Your task to perform on an android device: What's on my calendar today? Image 0: 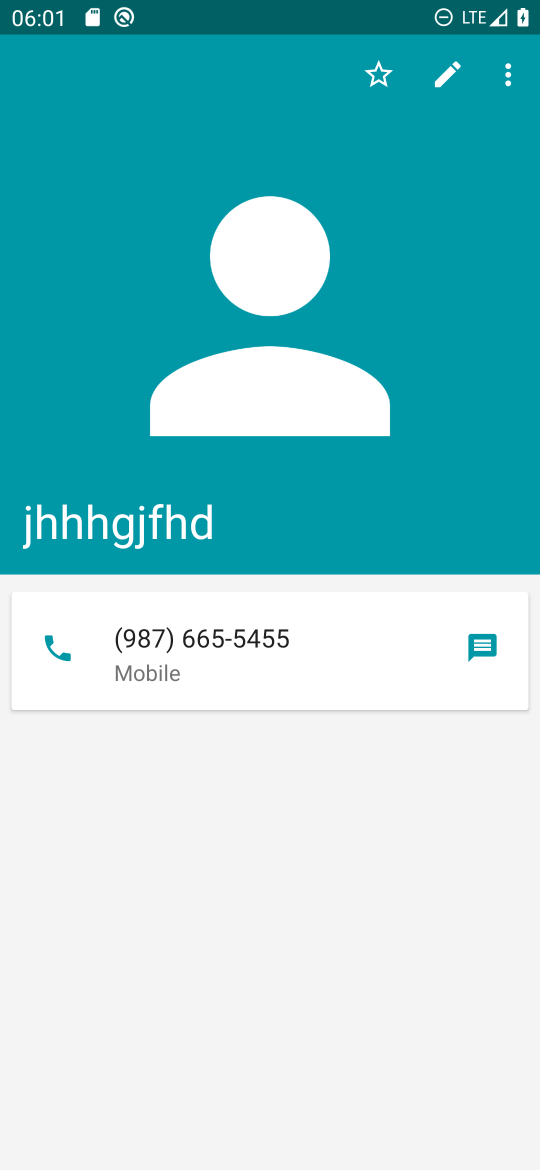
Step 0: press home button
Your task to perform on an android device: What's on my calendar today? Image 1: 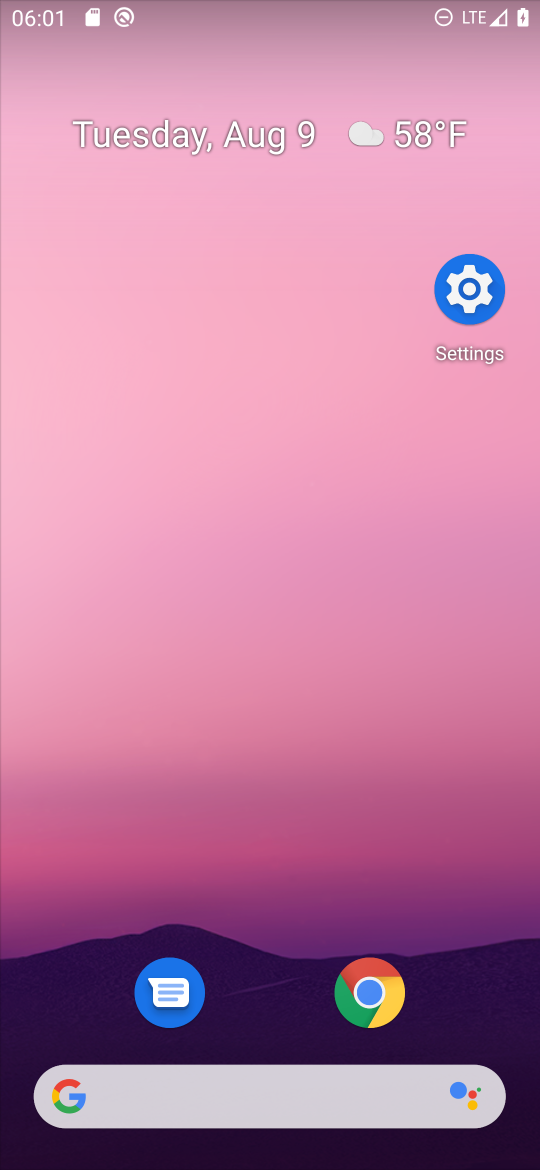
Step 1: drag from (281, 1066) to (494, 245)
Your task to perform on an android device: What's on my calendar today? Image 2: 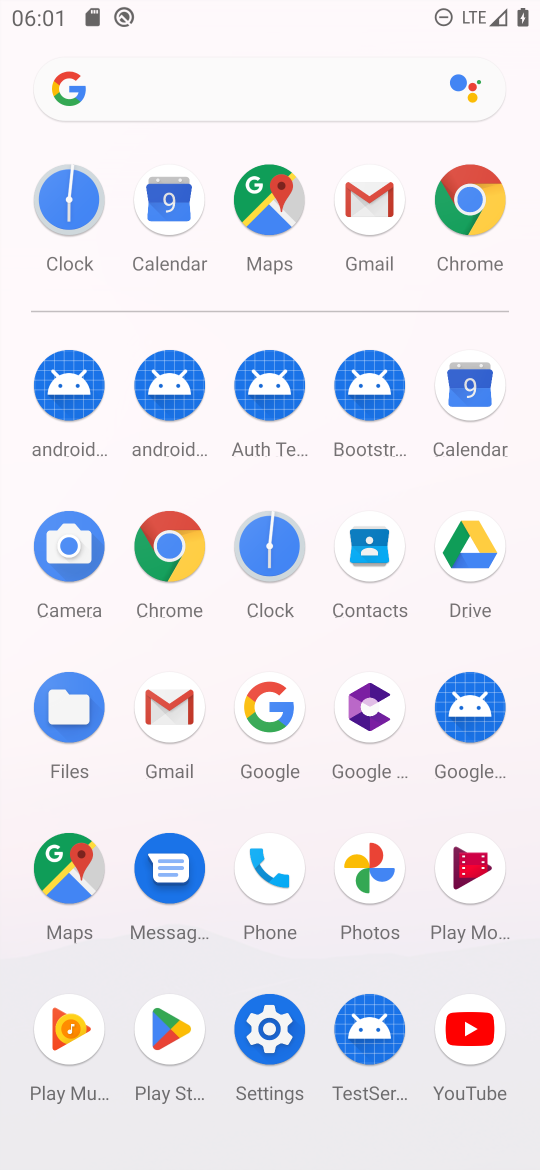
Step 2: click (468, 375)
Your task to perform on an android device: What's on my calendar today? Image 3: 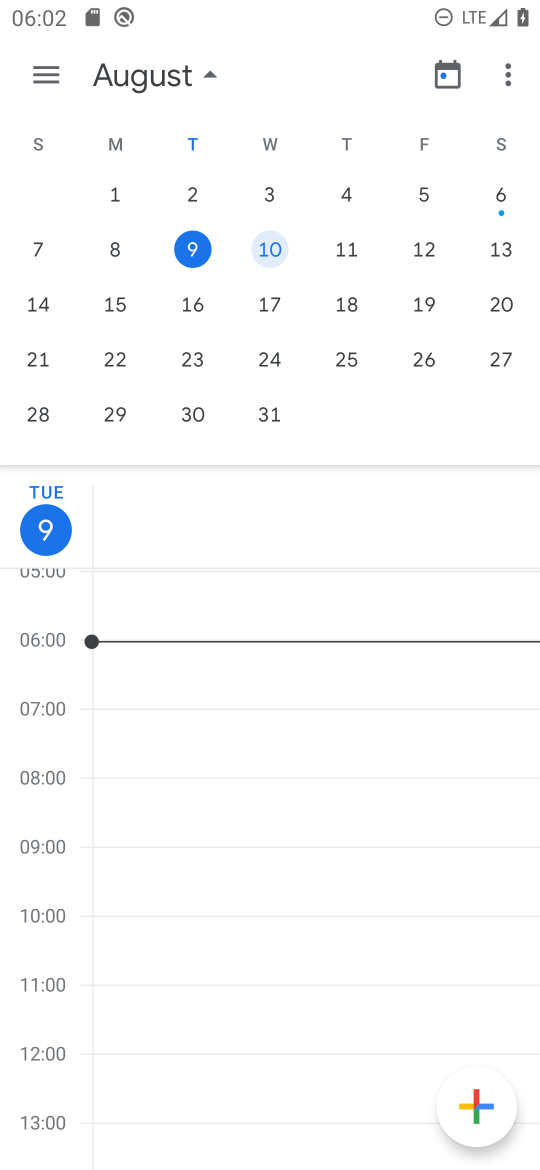
Step 3: click (192, 239)
Your task to perform on an android device: What's on my calendar today? Image 4: 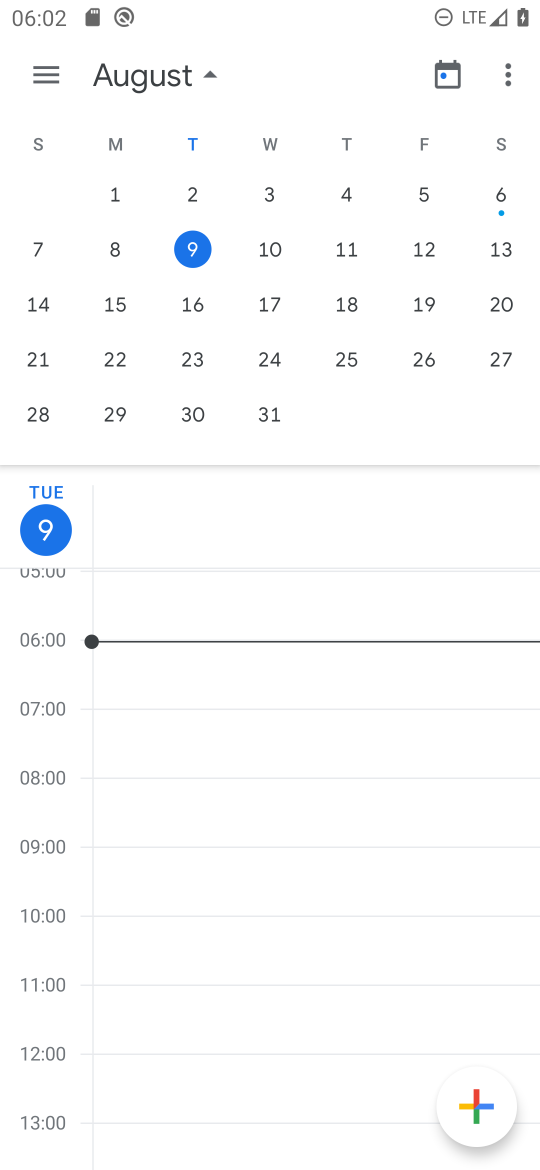
Step 4: task complete